Your task to perform on an android device: check google app version Image 0: 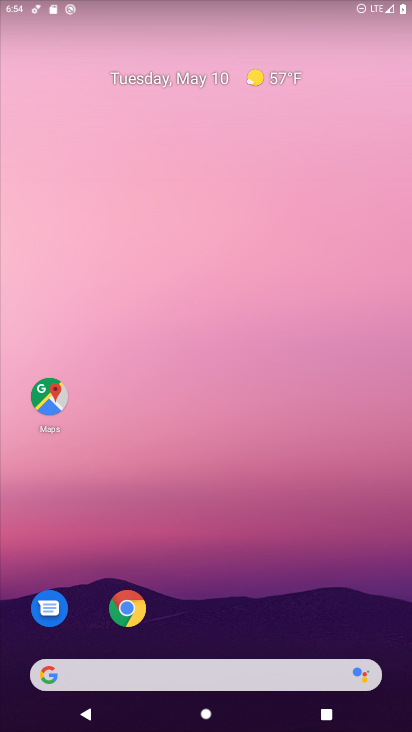
Step 0: drag from (350, 611) to (274, 73)
Your task to perform on an android device: check google app version Image 1: 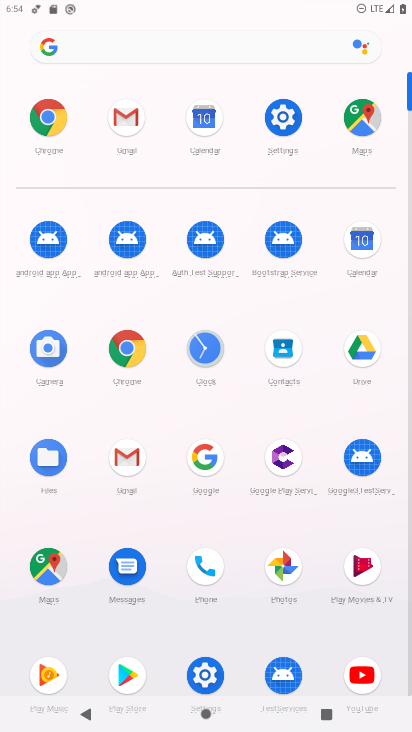
Step 1: click (202, 461)
Your task to perform on an android device: check google app version Image 2: 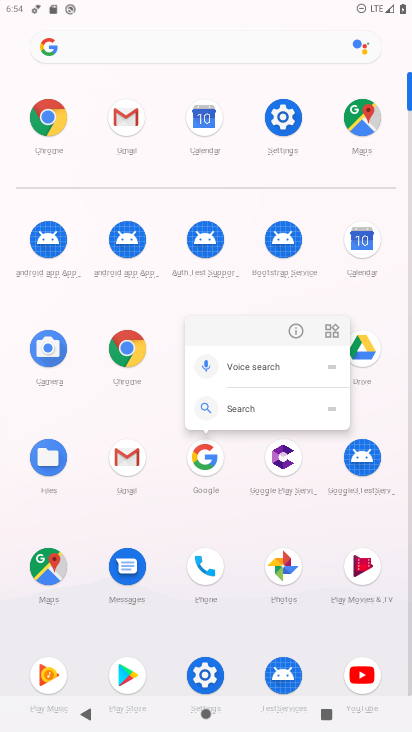
Step 2: click (291, 332)
Your task to perform on an android device: check google app version Image 3: 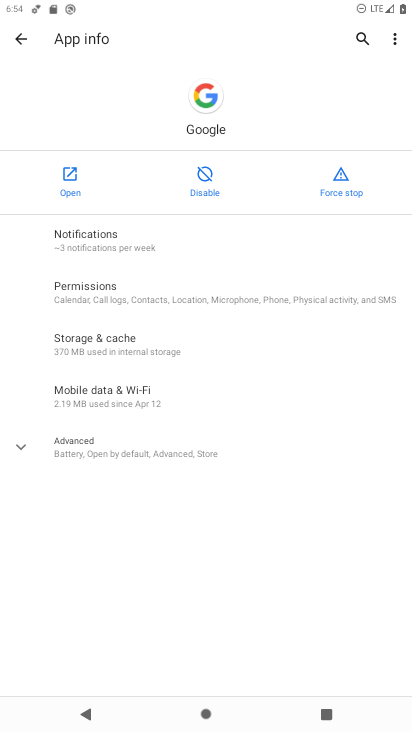
Step 3: click (102, 450)
Your task to perform on an android device: check google app version Image 4: 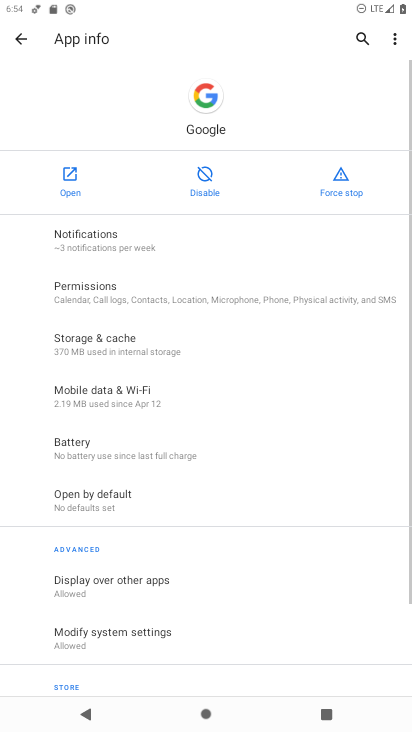
Step 4: task complete